Your task to perform on an android device: Open Google Maps and go to "Timeline" Image 0: 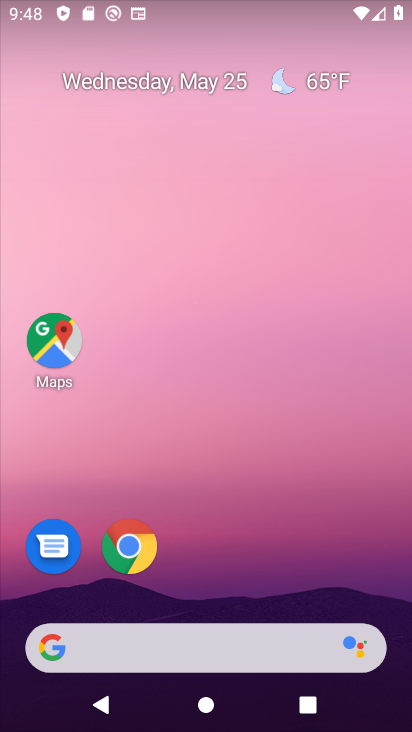
Step 0: drag from (267, 454) to (226, 3)
Your task to perform on an android device: Open Google Maps and go to "Timeline" Image 1: 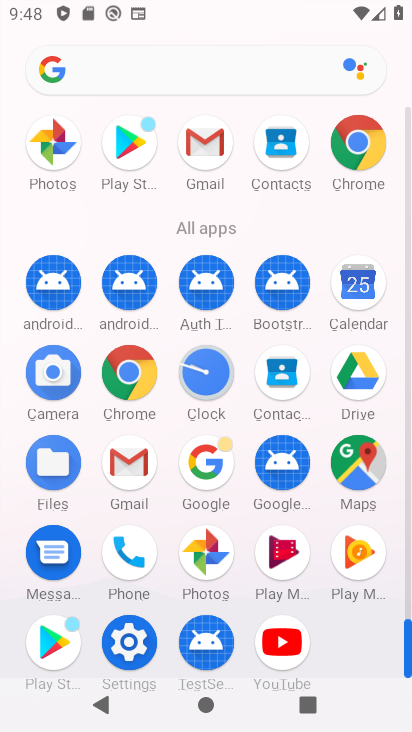
Step 1: drag from (2, 583) to (3, 283)
Your task to perform on an android device: Open Google Maps and go to "Timeline" Image 2: 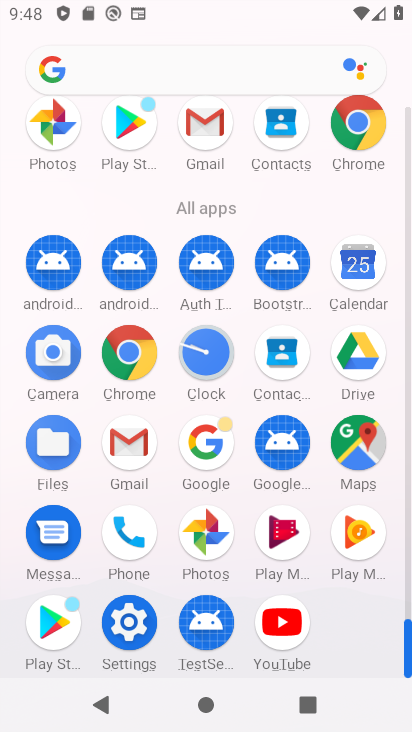
Step 2: click (354, 439)
Your task to perform on an android device: Open Google Maps and go to "Timeline" Image 3: 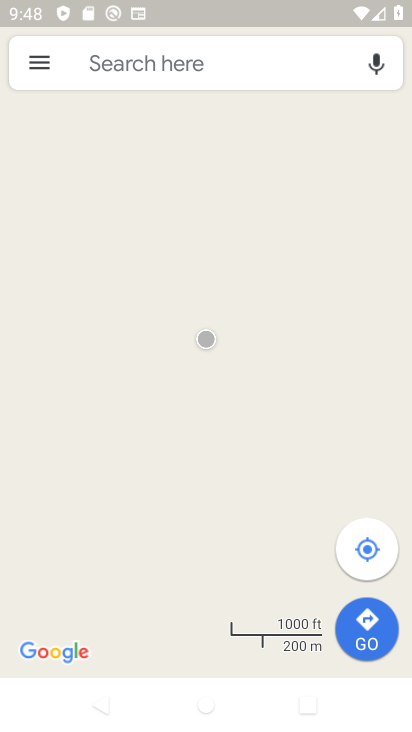
Step 3: click (31, 51)
Your task to perform on an android device: Open Google Maps and go to "Timeline" Image 4: 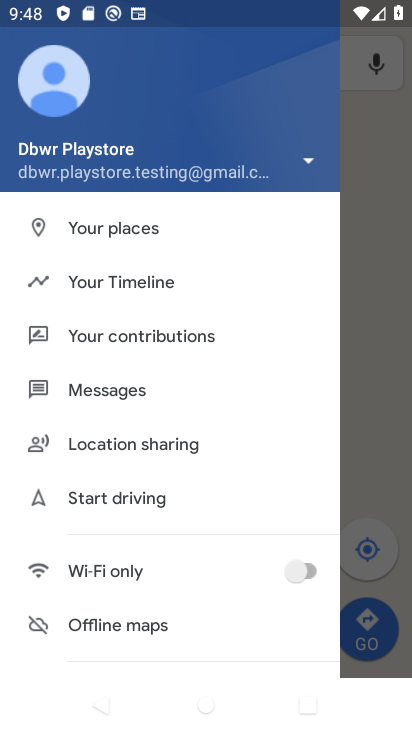
Step 4: click (142, 286)
Your task to perform on an android device: Open Google Maps and go to "Timeline" Image 5: 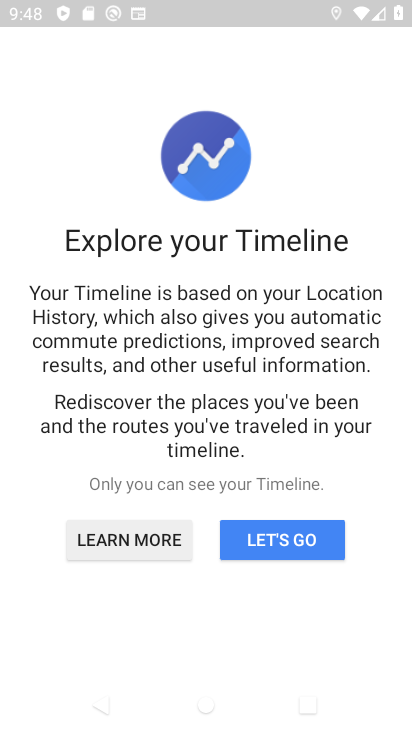
Step 5: click (279, 540)
Your task to perform on an android device: Open Google Maps and go to "Timeline" Image 6: 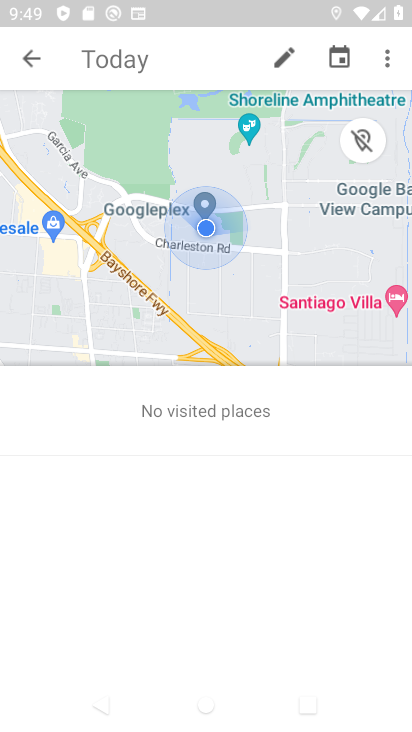
Step 6: task complete